Your task to perform on an android device: change the clock display to analog Image 0: 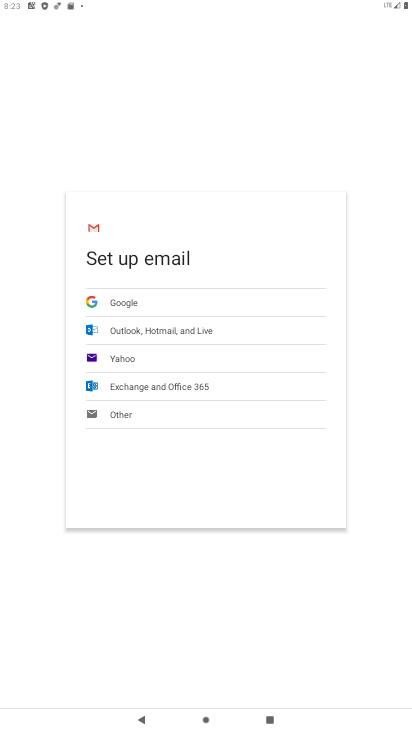
Step 0: press home button
Your task to perform on an android device: change the clock display to analog Image 1: 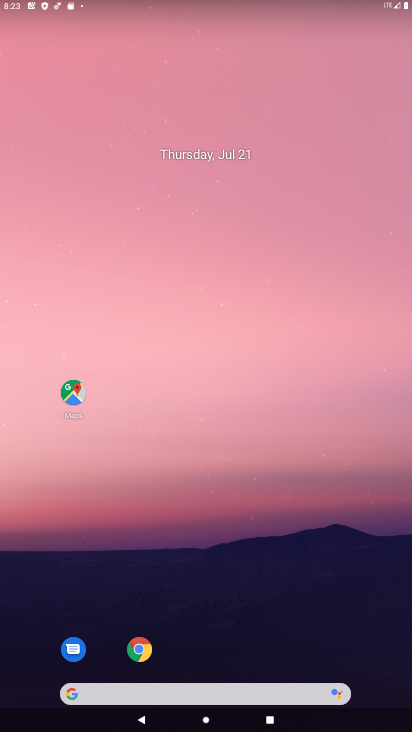
Step 1: drag from (200, 666) to (243, 332)
Your task to perform on an android device: change the clock display to analog Image 2: 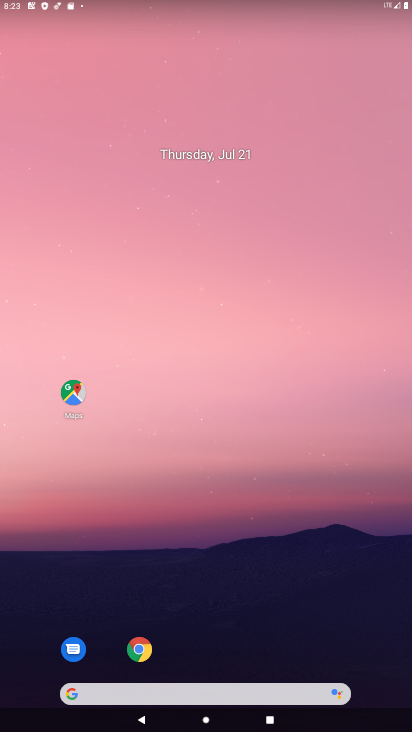
Step 2: drag from (252, 671) to (266, 58)
Your task to perform on an android device: change the clock display to analog Image 3: 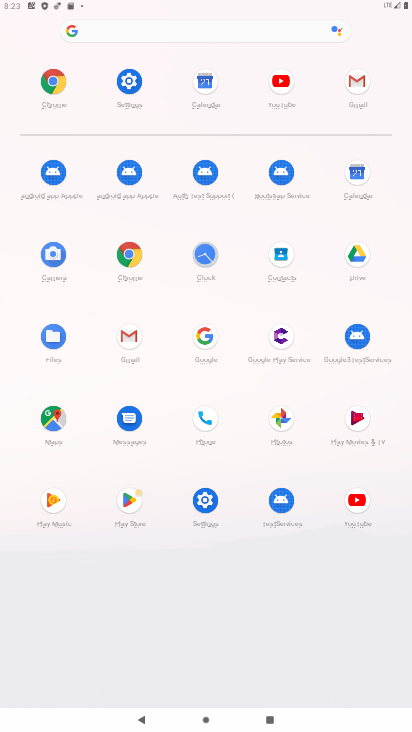
Step 3: click (203, 248)
Your task to perform on an android device: change the clock display to analog Image 4: 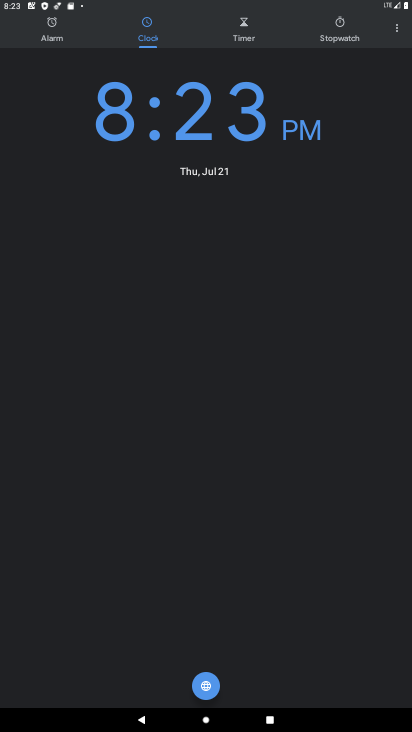
Step 4: click (396, 18)
Your task to perform on an android device: change the clock display to analog Image 5: 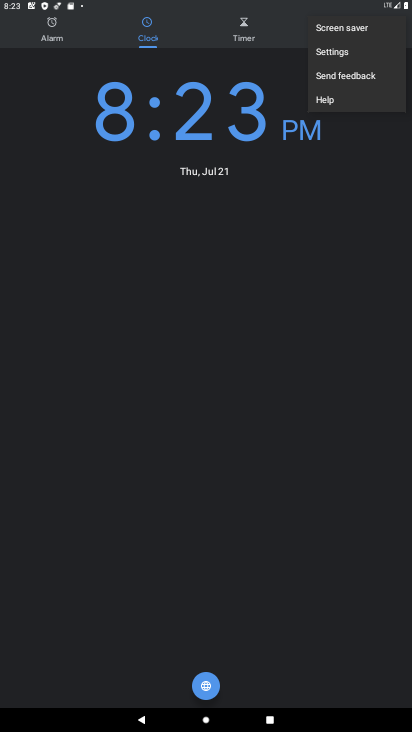
Step 5: click (338, 52)
Your task to perform on an android device: change the clock display to analog Image 6: 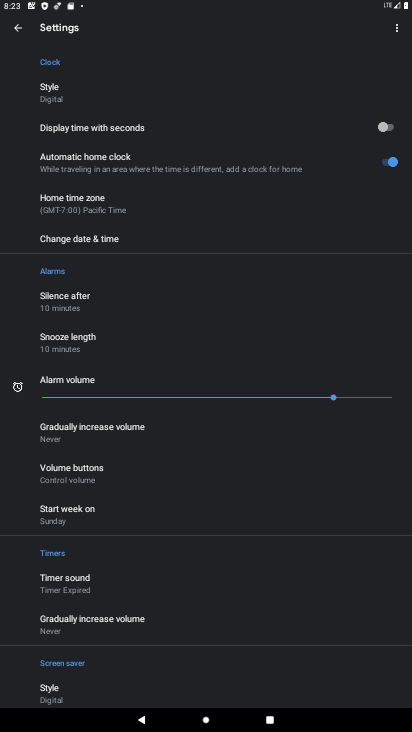
Step 6: click (75, 99)
Your task to perform on an android device: change the clock display to analog Image 7: 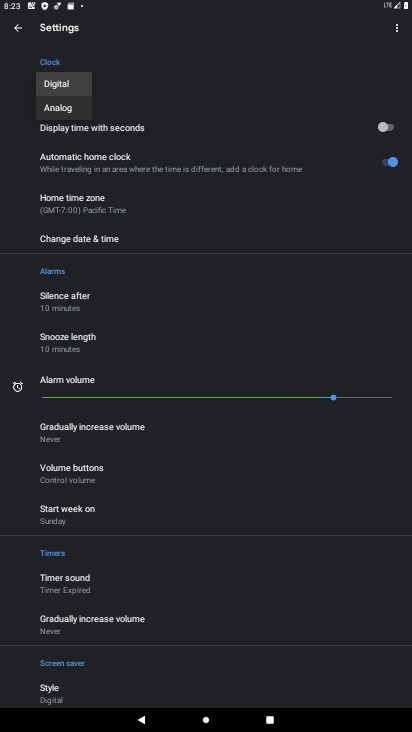
Step 7: click (55, 106)
Your task to perform on an android device: change the clock display to analog Image 8: 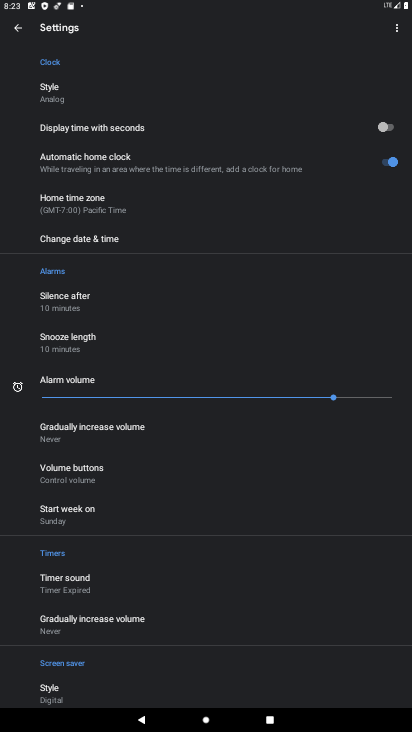
Step 8: task complete